Your task to perform on an android device: Open calendar and show me the second week of next month Image 0: 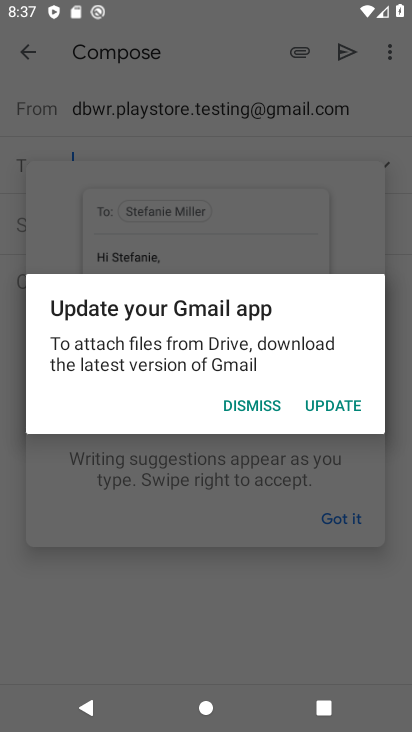
Step 0: press home button
Your task to perform on an android device: Open calendar and show me the second week of next month Image 1: 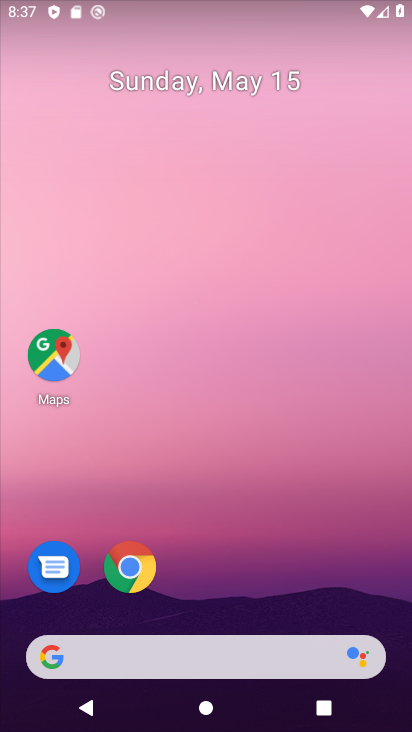
Step 1: drag from (176, 639) to (365, 13)
Your task to perform on an android device: Open calendar and show me the second week of next month Image 2: 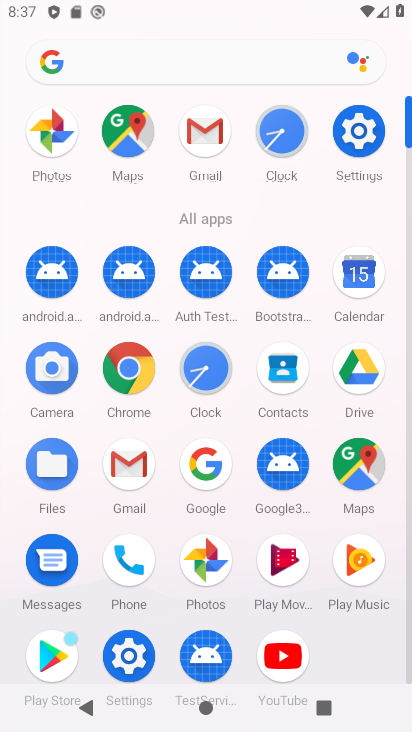
Step 2: click (368, 285)
Your task to perform on an android device: Open calendar and show me the second week of next month Image 3: 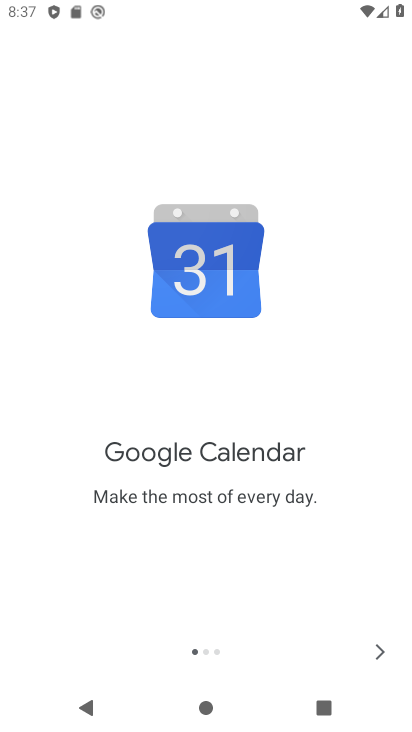
Step 3: click (379, 656)
Your task to perform on an android device: Open calendar and show me the second week of next month Image 4: 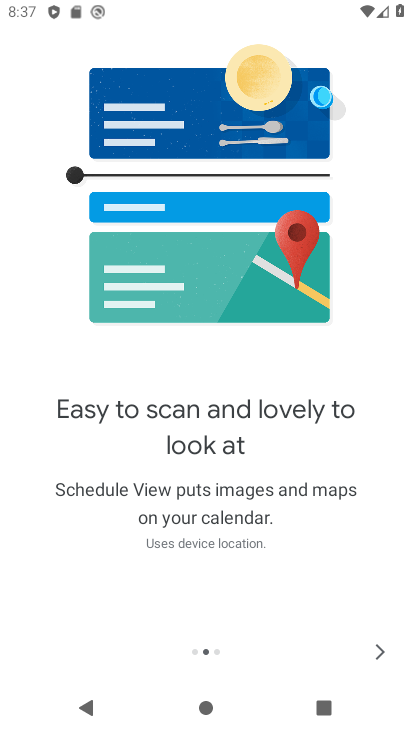
Step 4: click (379, 669)
Your task to perform on an android device: Open calendar and show me the second week of next month Image 5: 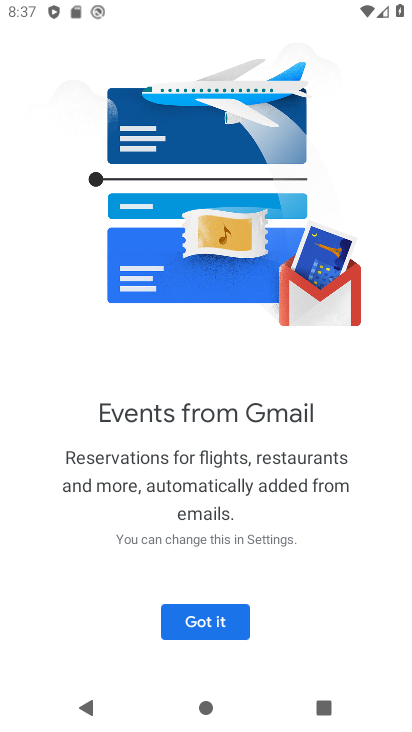
Step 5: click (205, 631)
Your task to perform on an android device: Open calendar and show me the second week of next month Image 6: 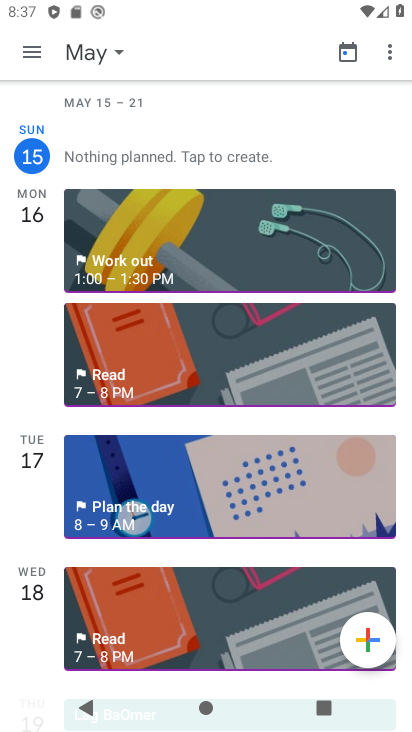
Step 6: click (95, 60)
Your task to perform on an android device: Open calendar and show me the second week of next month Image 7: 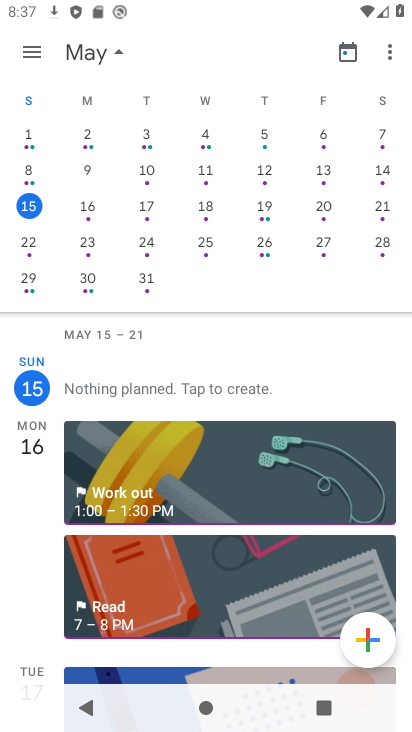
Step 7: drag from (370, 258) to (25, 240)
Your task to perform on an android device: Open calendar and show me the second week of next month Image 8: 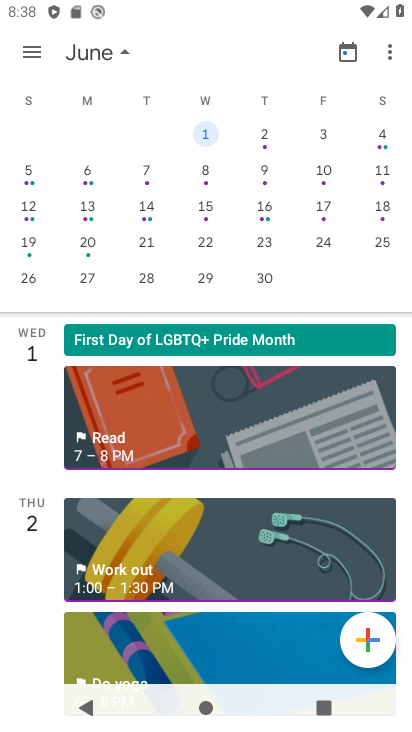
Step 8: click (24, 214)
Your task to perform on an android device: Open calendar and show me the second week of next month Image 9: 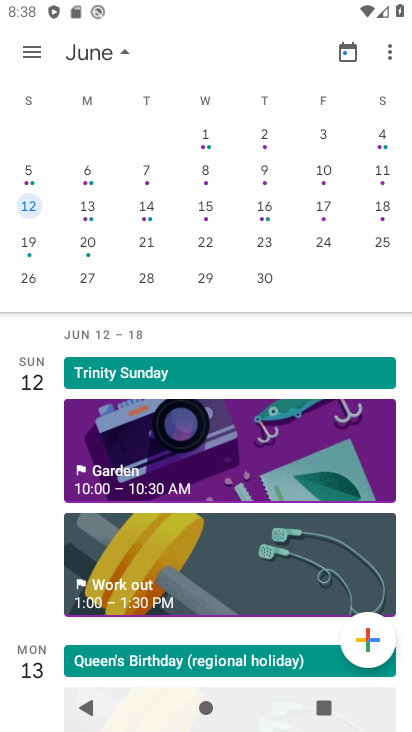
Step 9: click (33, 44)
Your task to perform on an android device: Open calendar and show me the second week of next month Image 10: 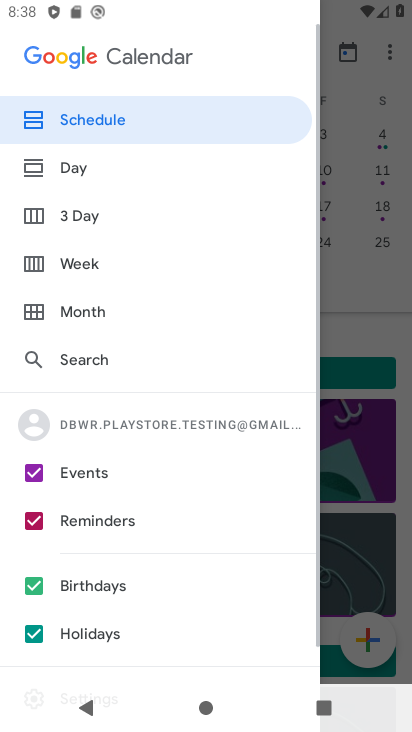
Step 10: click (111, 265)
Your task to perform on an android device: Open calendar and show me the second week of next month Image 11: 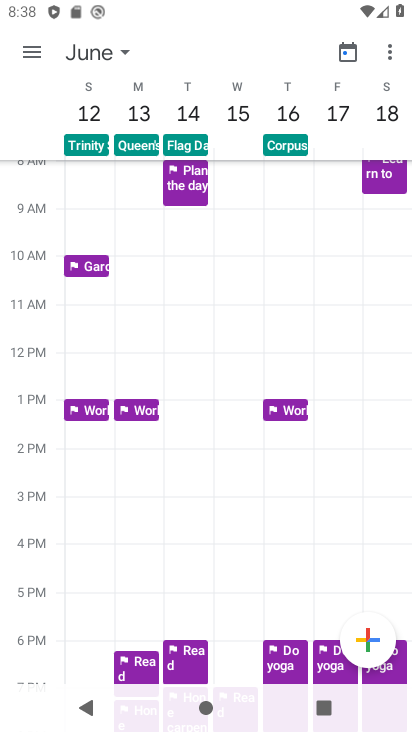
Step 11: task complete